Your task to perform on an android device: check android version Image 0: 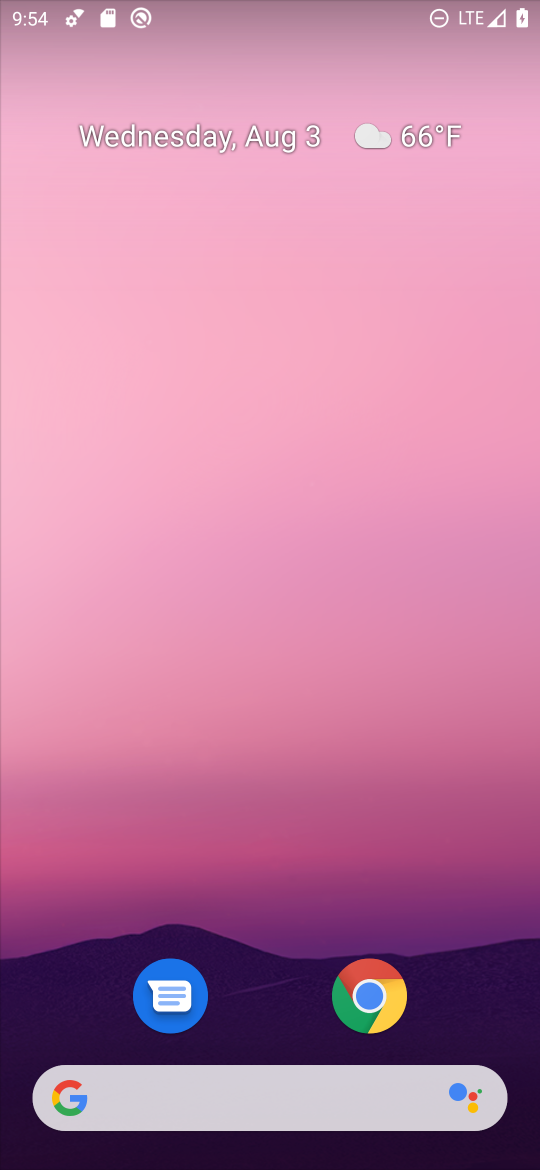
Step 0: drag from (289, 874) to (280, 0)
Your task to perform on an android device: check android version Image 1: 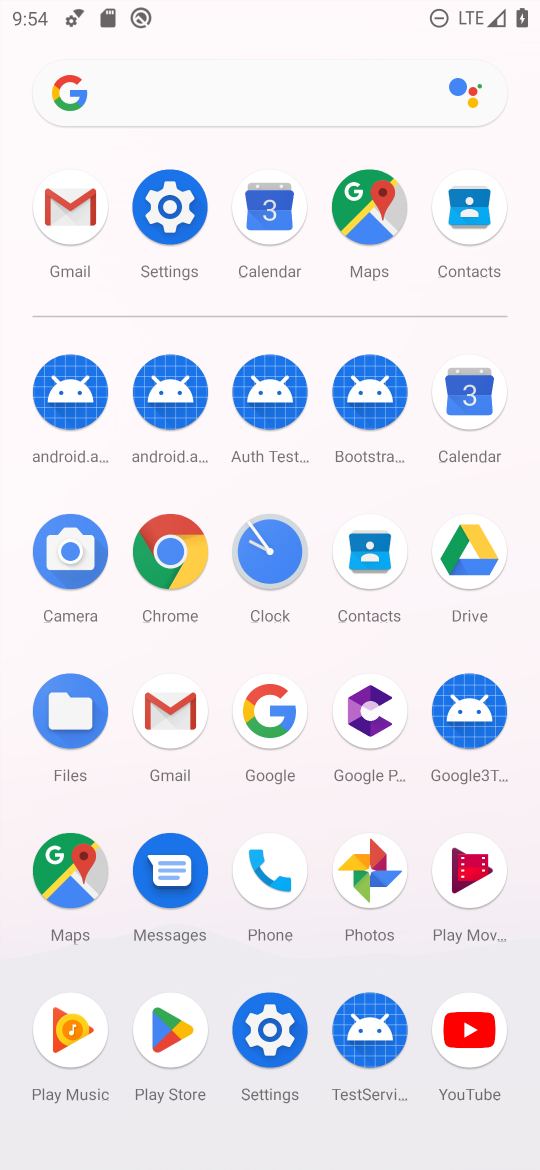
Step 1: click (163, 208)
Your task to perform on an android device: check android version Image 2: 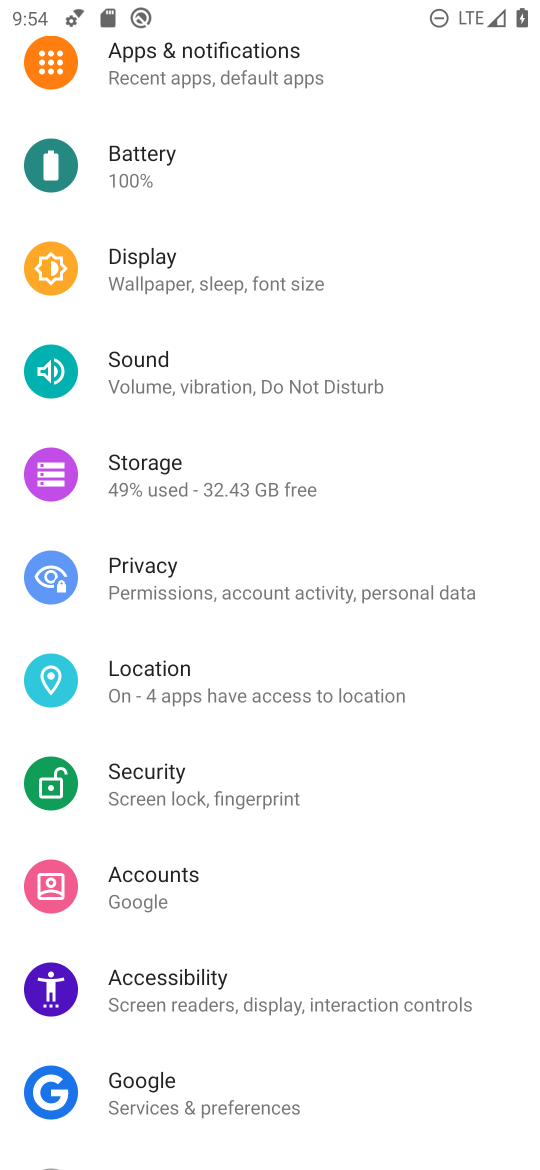
Step 2: drag from (374, 834) to (388, 498)
Your task to perform on an android device: check android version Image 3: 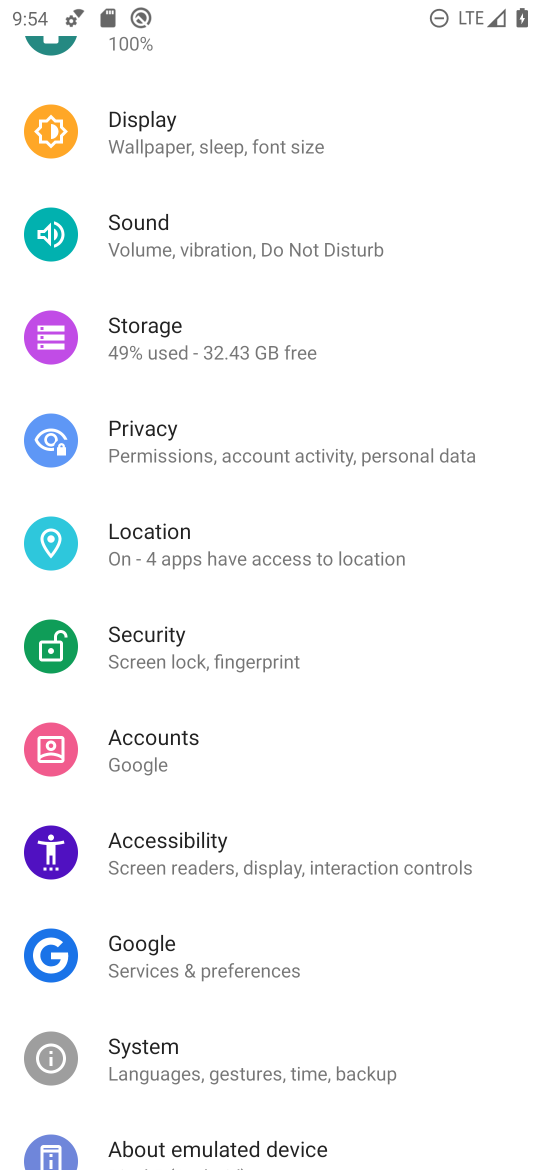
Step 3: click (269, 1158)
Your task to perform on an android device: check android version Image 4: 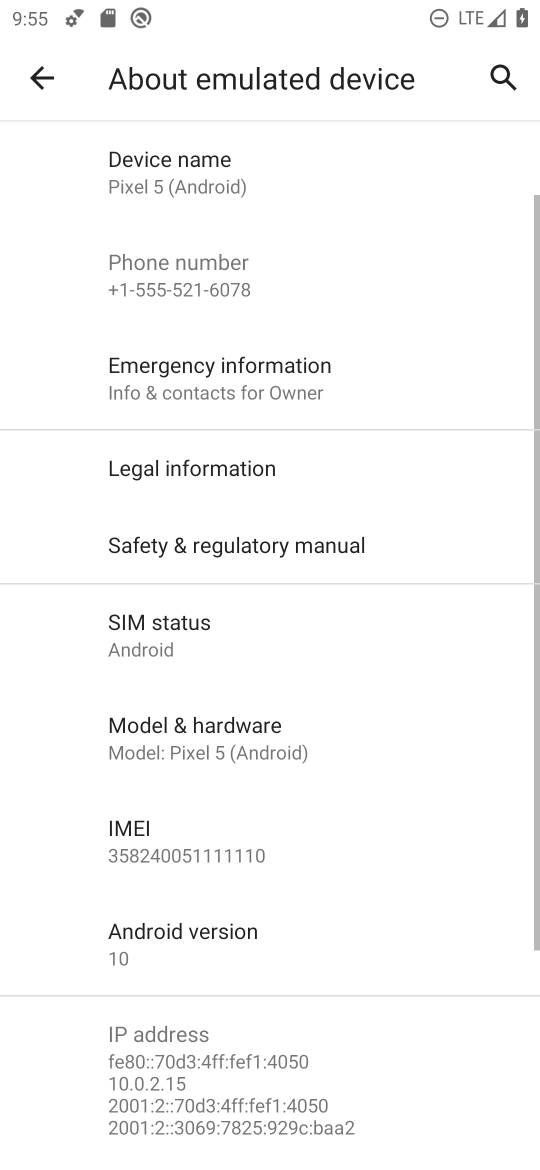
Step 4: click (300, 970)
Your task to perform on an android device: check android version Image 5: 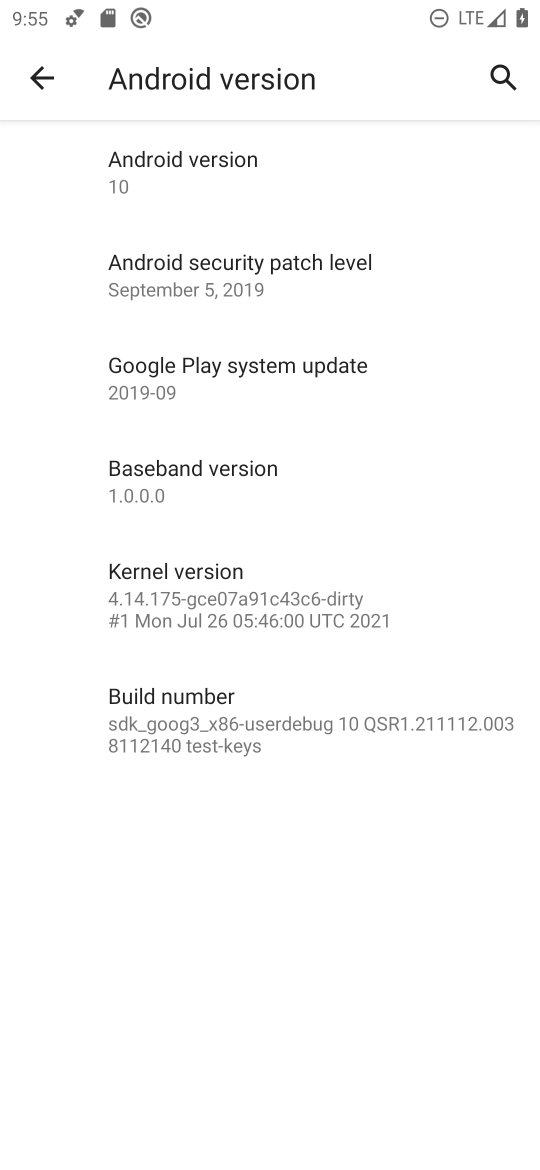
Step 5: task complete